Your task to perform on an android device: Go to Google Image 0: 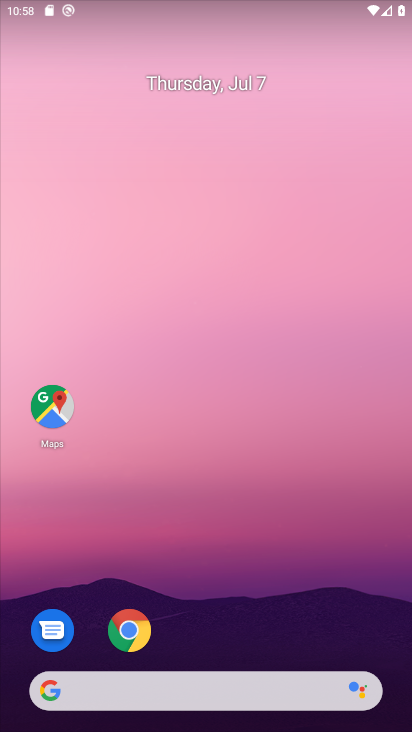
Step 0: drag from (229, 590) to (187, 34)
Your task to perform on an android device: Go to Google Image 1: 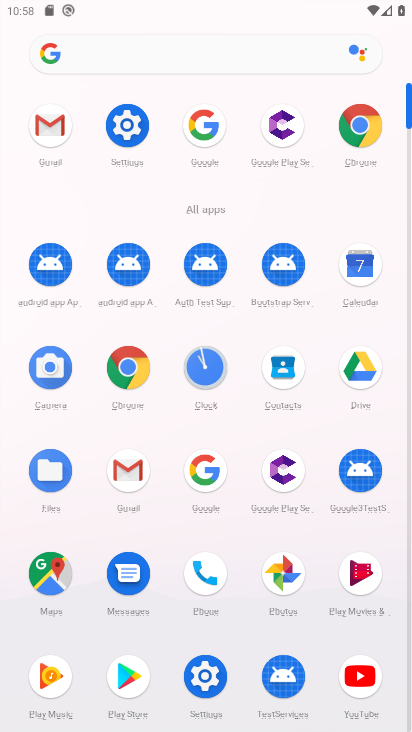
Step 1: click (209, 470)
Your task to perform on an android device: Go to Google Image 2: 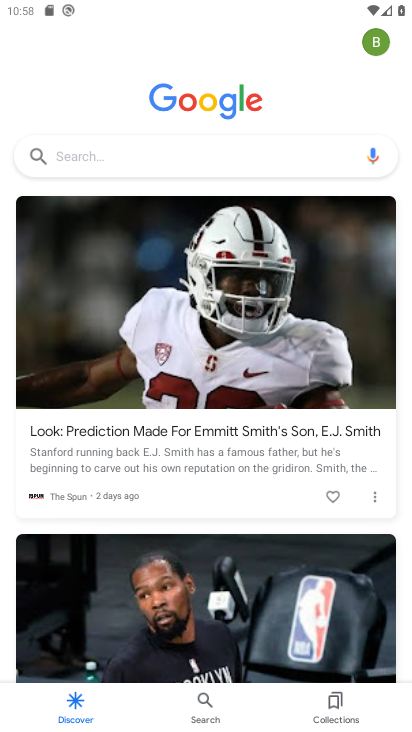
Step 2: task complete